Your task to perform on an android device: Open Youtube and go to "Your channel" Image 0: 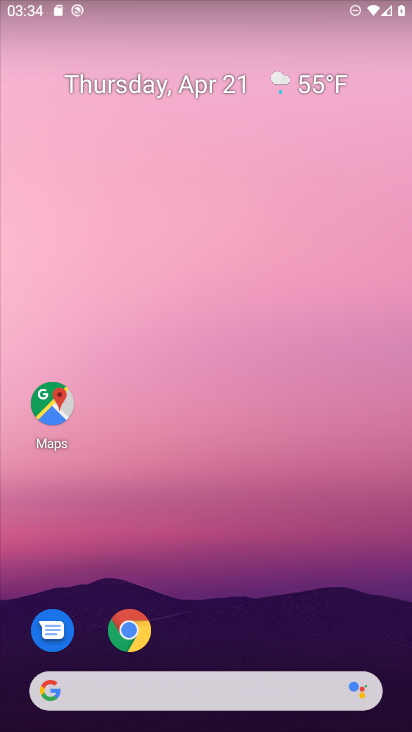
Step 0: drag from (279, 607) to (271, 185)
Your task to perform on an android device: Open Youtube and go to "Your channel" Image 1: 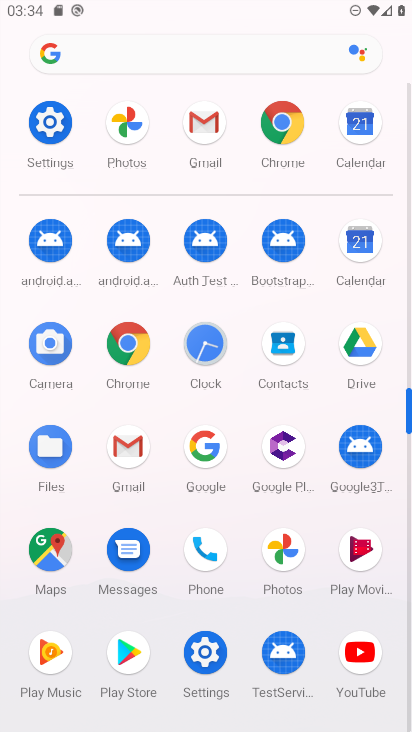
Step 1: click (350, 656)
Your task to perform on an android device: Open Youtube and go to "Your channel" Image 2: 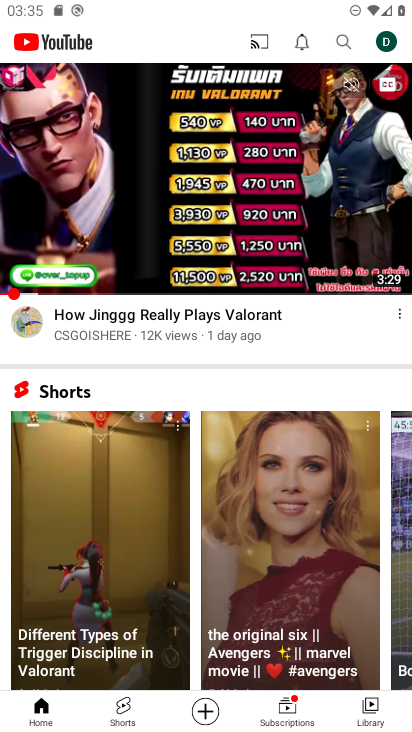
Step 2: click (398, 38)
Your task to perform on an android device: Open Youtube and go to "Your channel" Image 3: 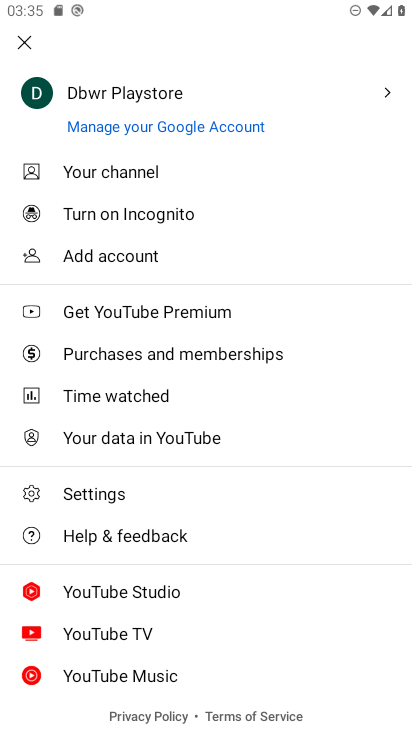
Step 3: click (170, 178)
Your task to perform on an android device: Open Youtube and go to "Your channel" Image 4: 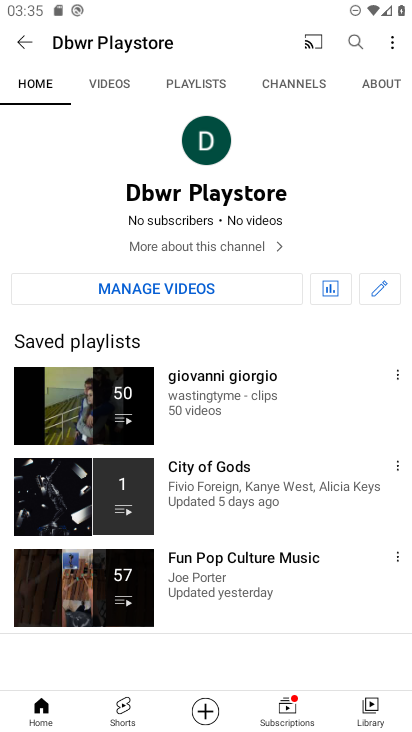
Step 4: task complete